Your task to perform on an android device: turn smart compose on in the gmail app Image 0: 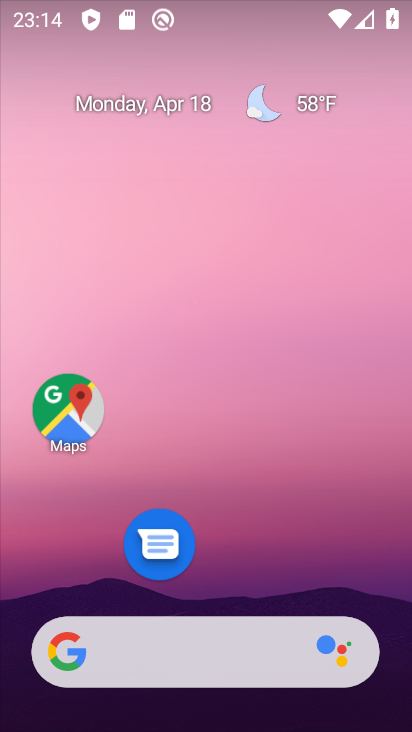
Step 0: drag from (264, 506) to (289, 44)
Your task to perform on an android device: turn smart compose on in the gmail app Image 1: 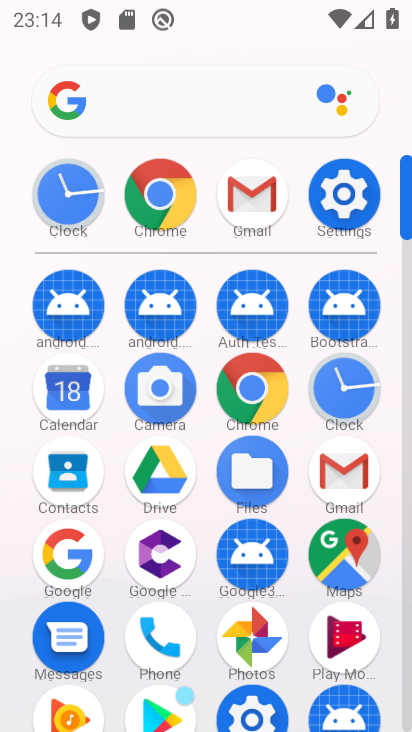
Step 1: click (259, 195)
Your task to perform on an android device: turn smart compose on in the gmail app Image 2: 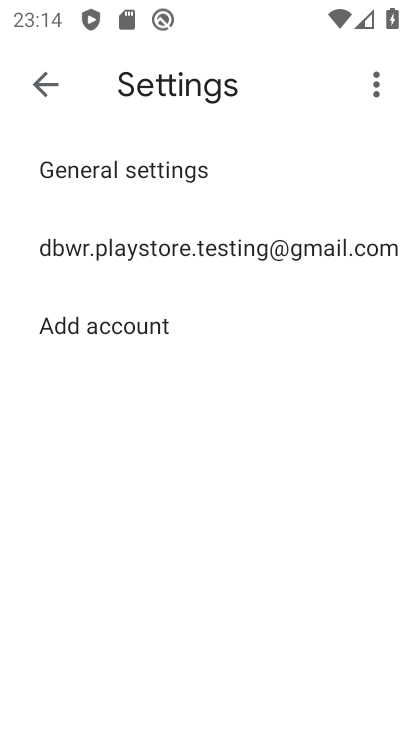
Step 2: click (226, 240)
Your task to perform on an android device: turn smart compose on in the gmail app Image 3: 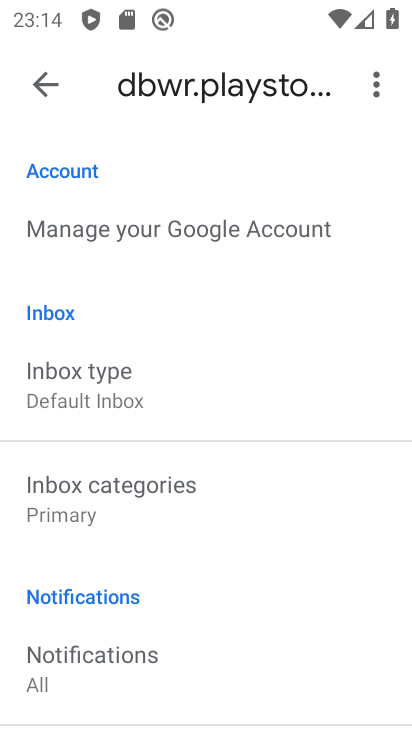
Step 3: task complete